Your task to perform on an android device: check data usage Image 0: 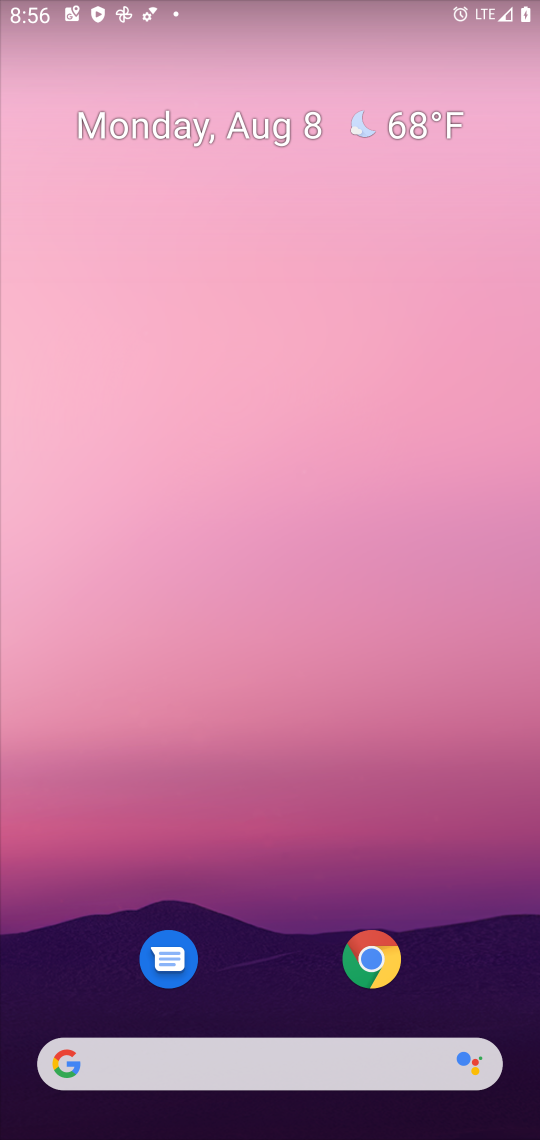
Step 0: drag from (428, 690) to (190, 14)
Your task to perform on an android device: check data usage Image 1: 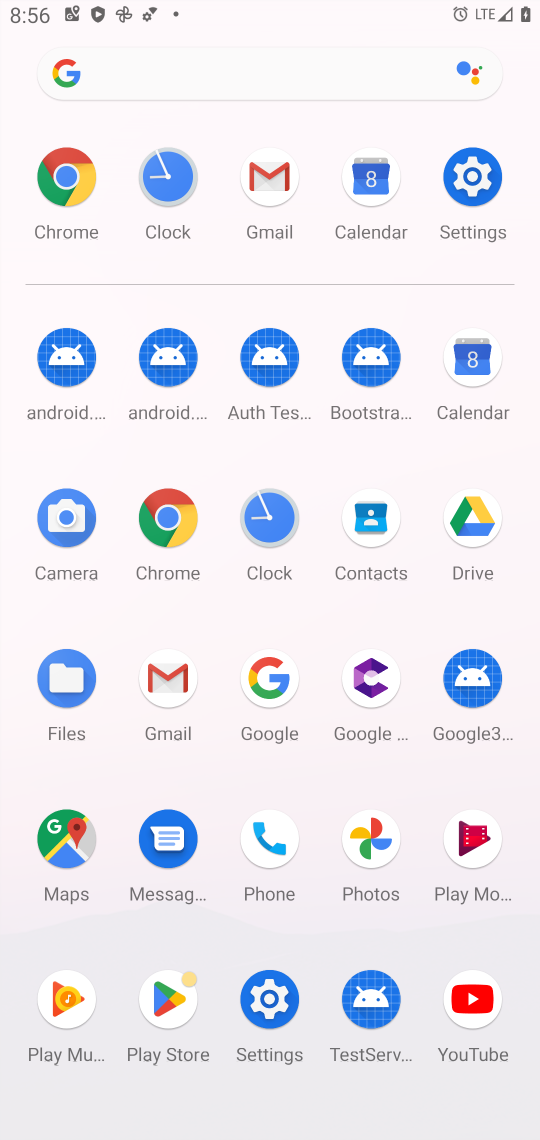
Step 1: click (465, 195)
Your task to perform on an android device: check data usage Image 2: 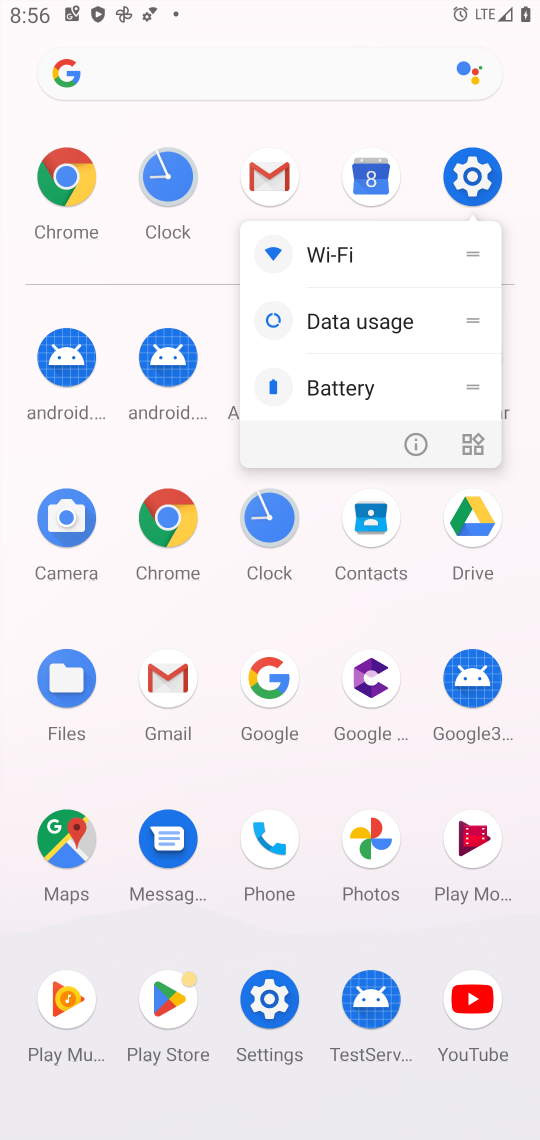
Step 2: click (465, 195)
Your task to perform on an android device: check data usage Image 3: 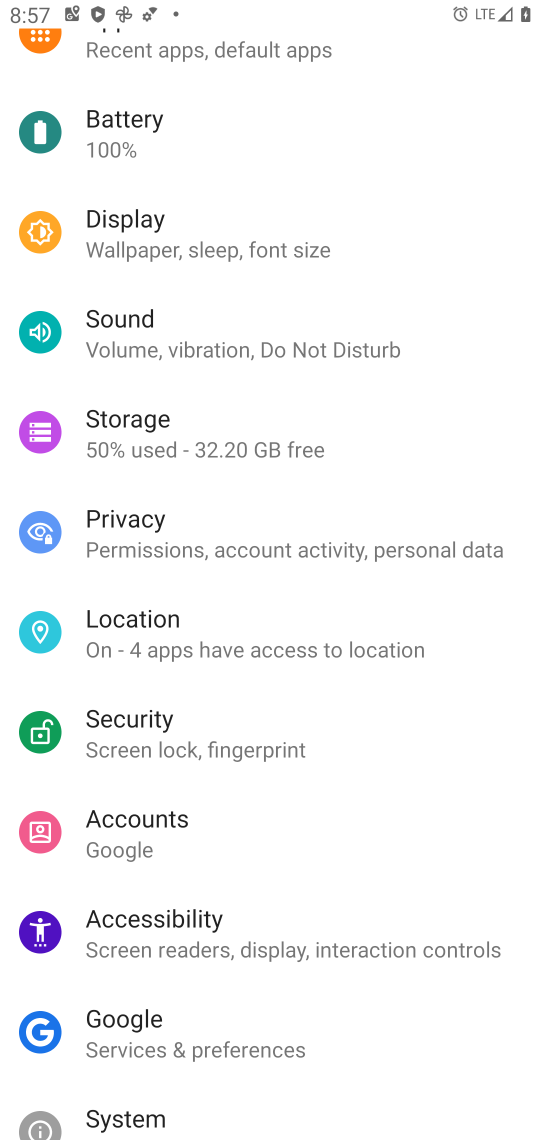
Step 3: drag from (245, 145) to (330, 1009)
Your task to perform on an android device: check data usage Image 4: 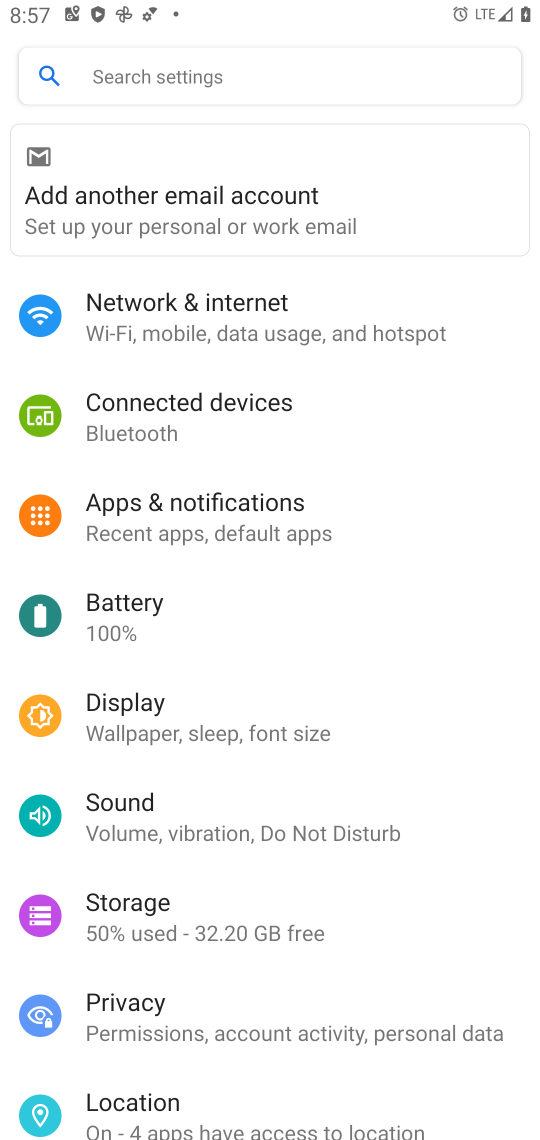
Step 4: click (215, 349)
Your task to perform on an android device: check data usage Image 5: 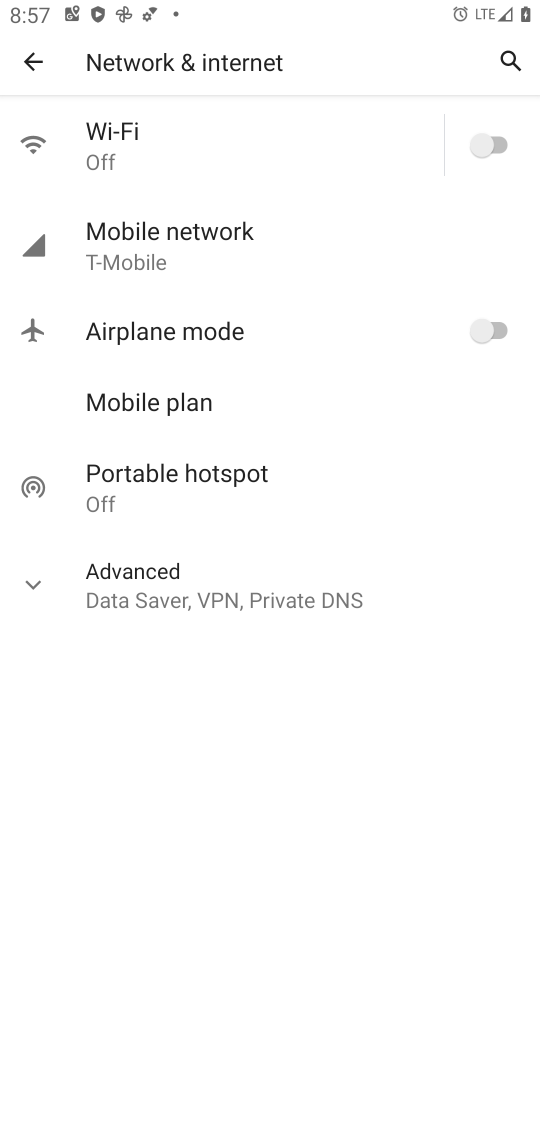
Step 5: click (177, 273)
Your task to perform on an android device: check data usage Image 6: 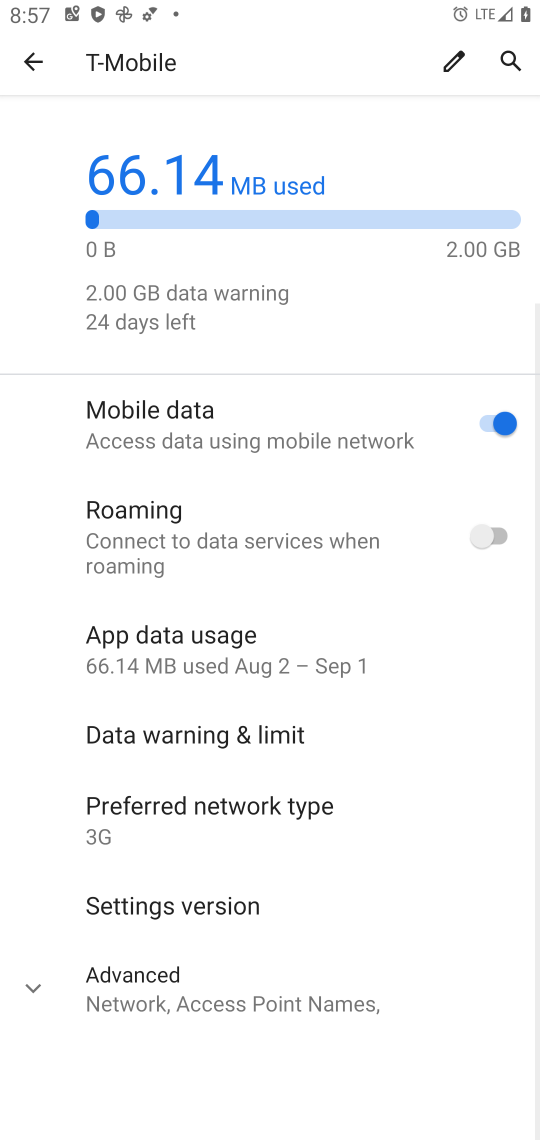
Step 6: click (203, 664)
Your task to perform on an android device: check data usage Image 7: 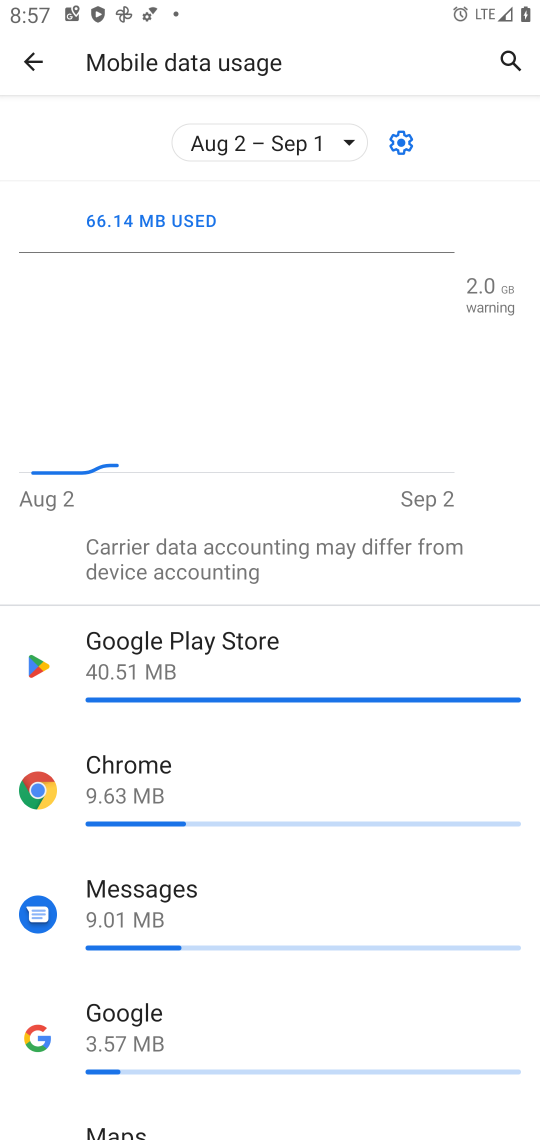
Step 7: task complete